Your task to perform on an android device: Go to Google maps Image 0: 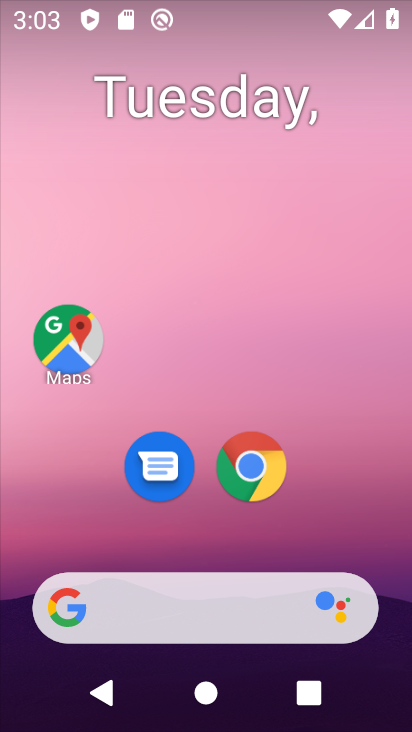
Step 0: click (78, 339)
Your task to perform on an android device: Go to Google maps Image 1: 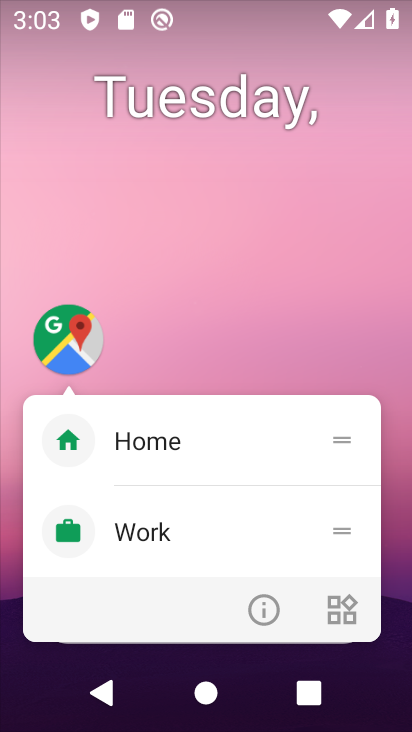
Step 1: click (75, 336)
Your task to perform on an android device: Go to Google maps Image 2: 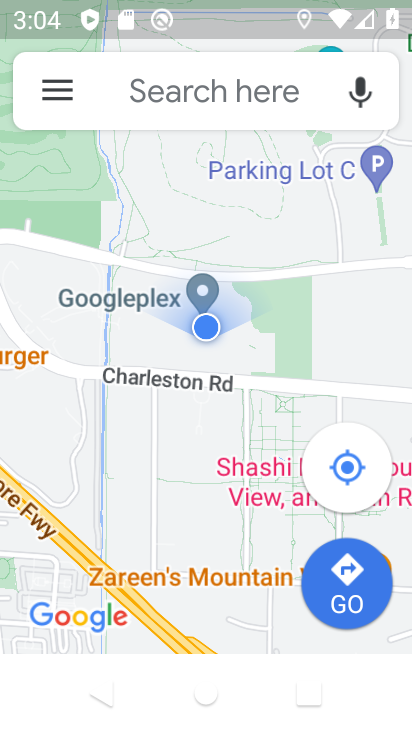
Step 2: task complete